Your task to perform on an android device: Search for seafood restaurants on Google Maps Image 0: 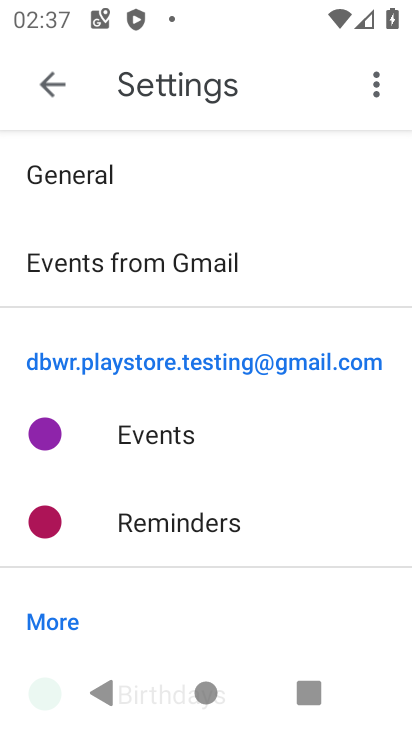
Step 0: press home button
Your task to perform on an android device: Search for seafood restaurants on Google Maps Image 1: 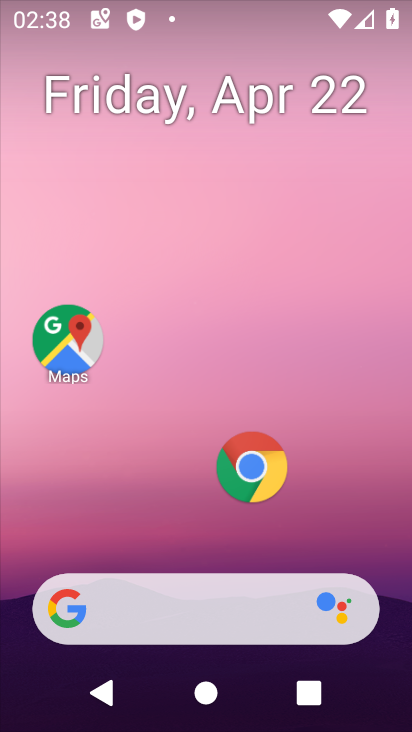
Step 1: click (83, 330)
Your task to perform on an android device: Search for seafood restaurants on Google Maps Image 2: 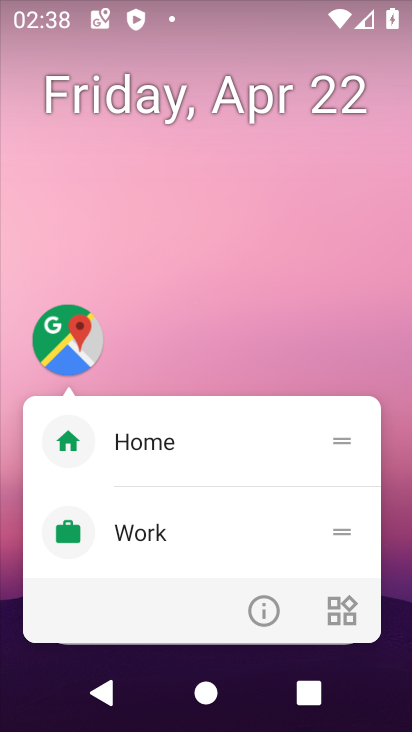
Step 2: click (266, 628)
Your task to perform on an android device: Search for seafood restaurants on Google Maps Image 3: 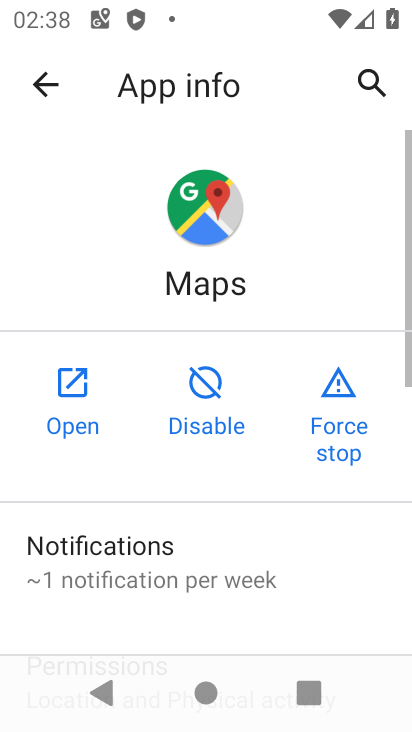
Step 3: click (72, 410)
Your task to perform on an android device: Search for seafood restaurants on Google Maps Image 4: 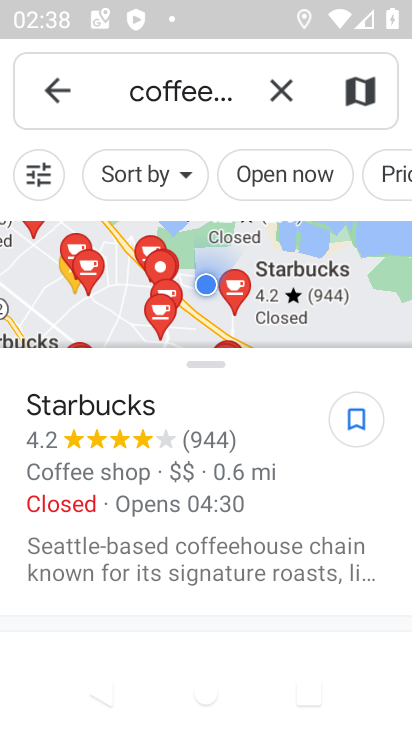
Step 4: click (279, 98)
Your task to perform on an android device: Search for seafood restaurants on Google Maps Image 5: 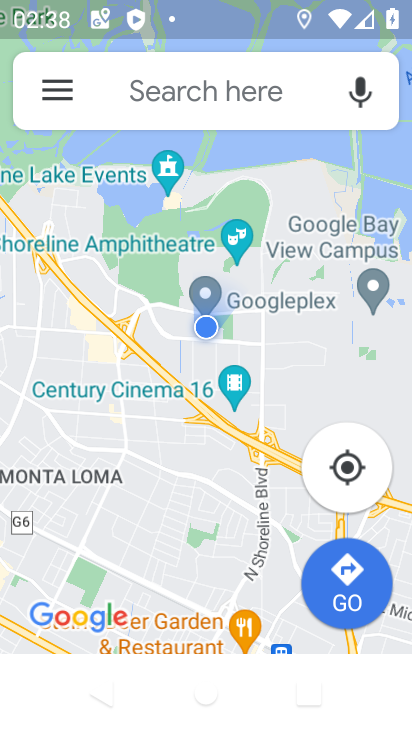
Step 5: type "seafood restaurants"
Your task to perform on an android device: Search for seafood restaurants on Google Maps Image 6: 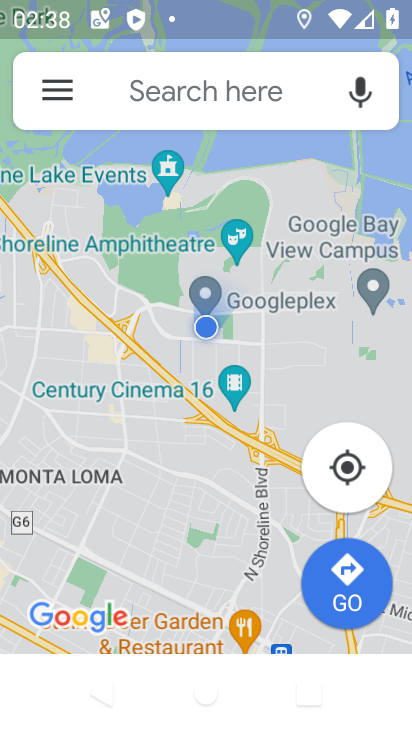
Step 6: click (182, 89)
Your task to perform on an android device: Search for seafood restaurants on Google Maps Image 7: 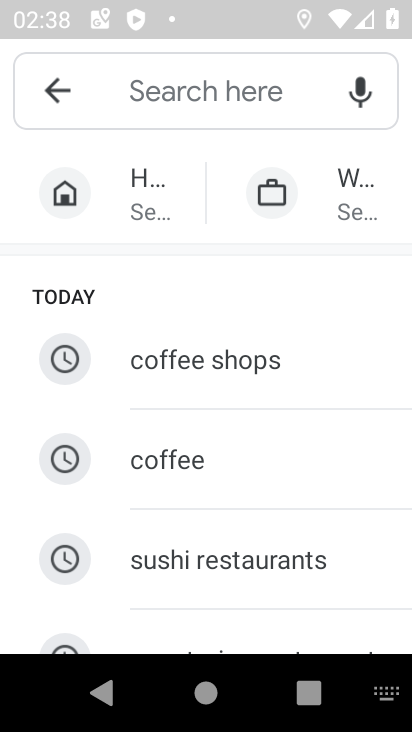
Step 7: type "seafood restaurants"
Your task to perform on an android device: Search for seafood restaurants on Google Maps Image 8: 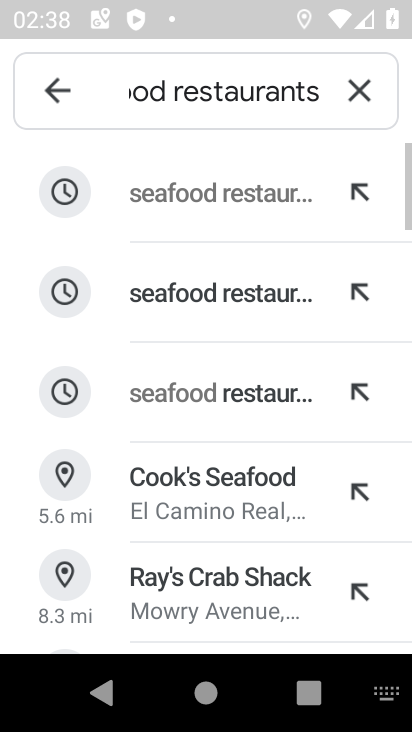
Step 8: click (128, 194)
Your task to perform on an android device: Search for seafood restaurants on Google Maps Image 9: 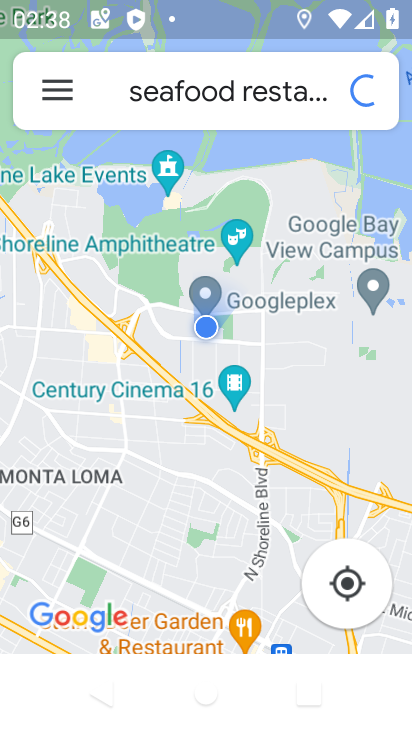
Step 9: task complete